Your task to perform on an android device: check the backup settings in the google photos Image 0: 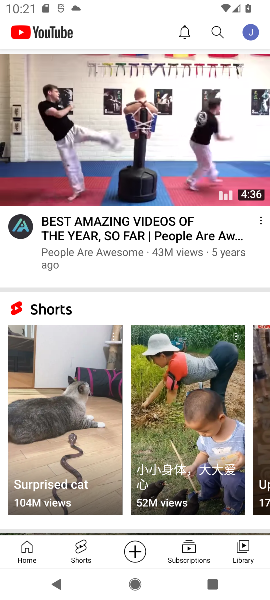
Step 0: press home button
Your task to perform on an android device: check the backup settings in the google photos Image 1: 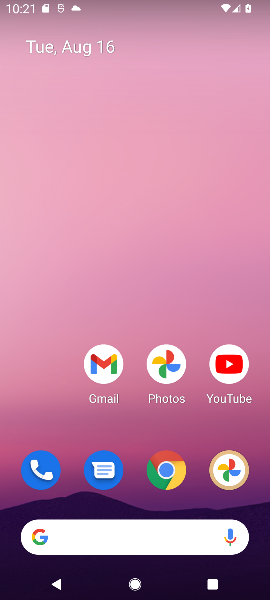
Step 1: click (169, 364)
Your task to perform on an android device: check the backup settings in the google photos Image 2: 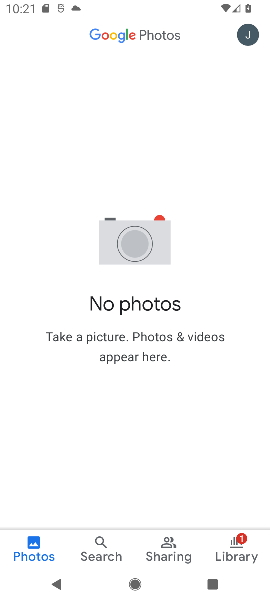
Step 2: click (252, 32)
Your task to perform on an android device: check the backup settings in the google photos Image 3: 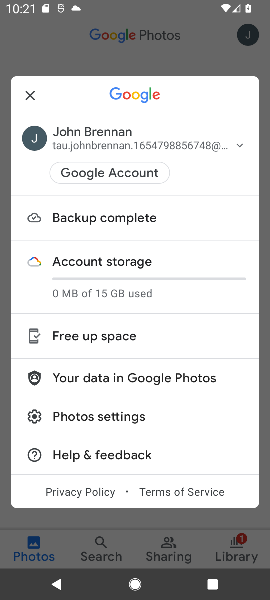
Step 3: click (122, 416)
Your task to perform on an android device: check the backup settings in the google photos Image 4: 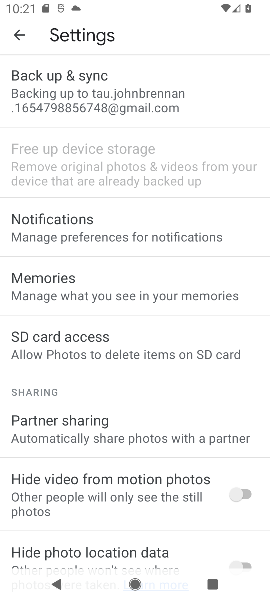
Step 4: click (107, 96)
Your task to perform on an android device: check the backup settings in the google photos Image 5: 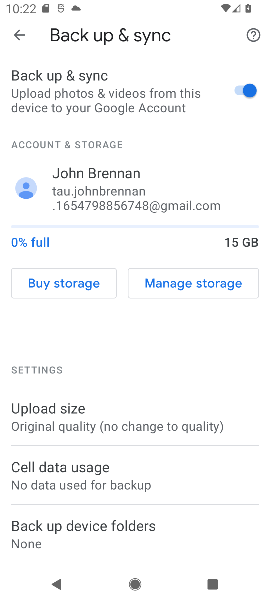
Step 5: task complete